Your task to perform on an android device: Search for Mexican restaurants on Maps Image 0: 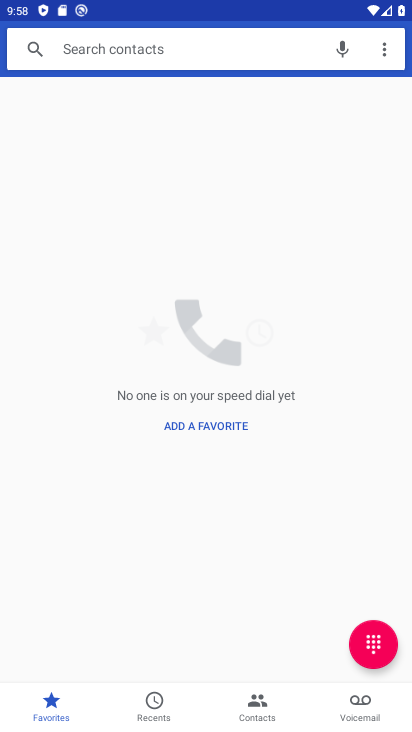
Step 0: press home button
Your task to perform on an android device: Search for Mexican restaurants on Maps Image 1: 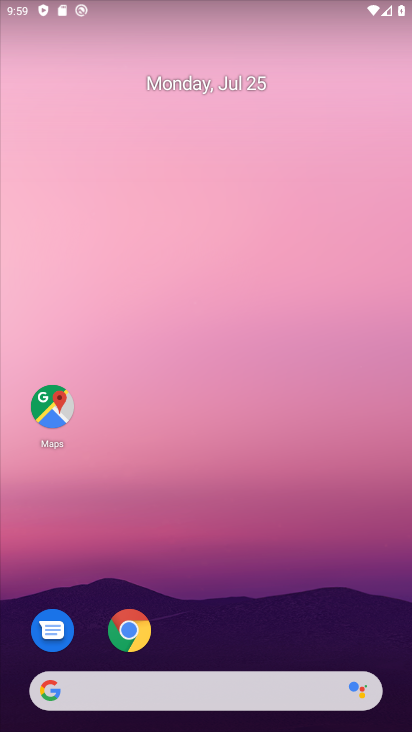
Step 1: drag from (346, 564) to (350, 108)
Your task to perform on an android device: Search for Mexican restaurants on Maps Image 2: 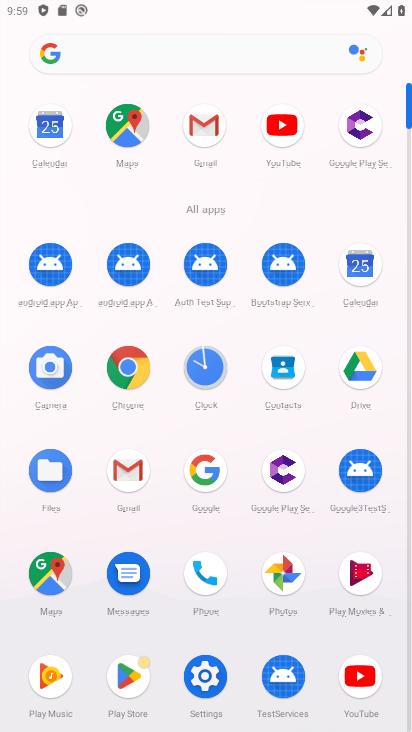
Step 2: click (49, 573)
Your task to perform on an android device: Search for Mexican restaurants on Maps Image 3: 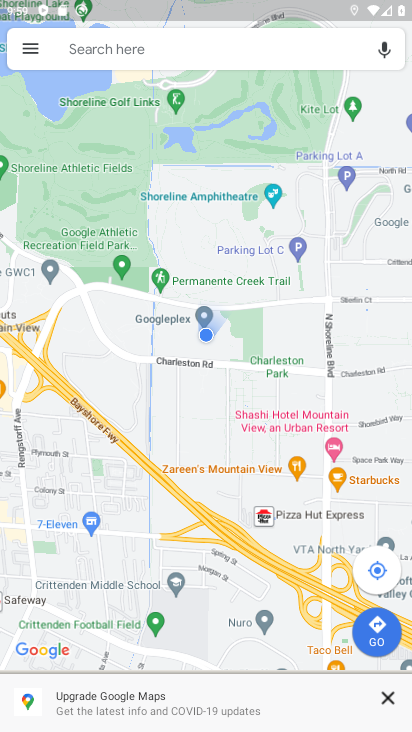
Step 3: click (115, 50)
Your task to perform on an android device: Search for Mexican restaurants on Maps Image 4: 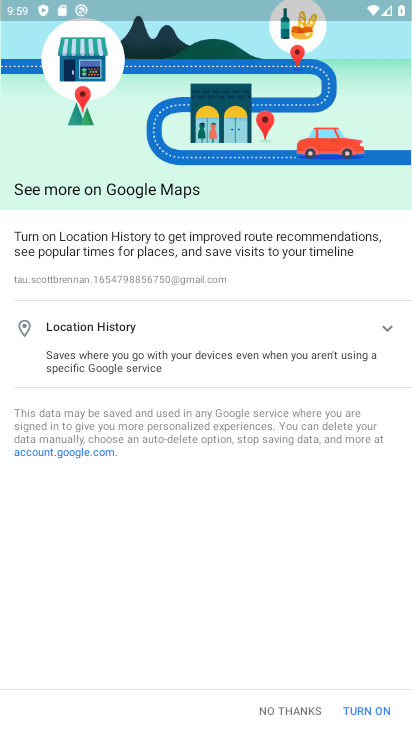
Step 4: click (304, 710)
Your task to perform on an android device: Search for Mexican restaurants on Maps Image 5: 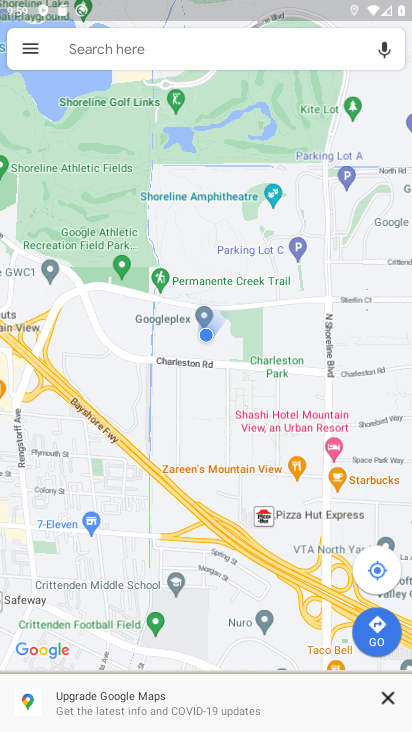
Step 5: click (163, 49)
Your task to perform on an android device: Search for Mexican restaurants on Maps Image 6: 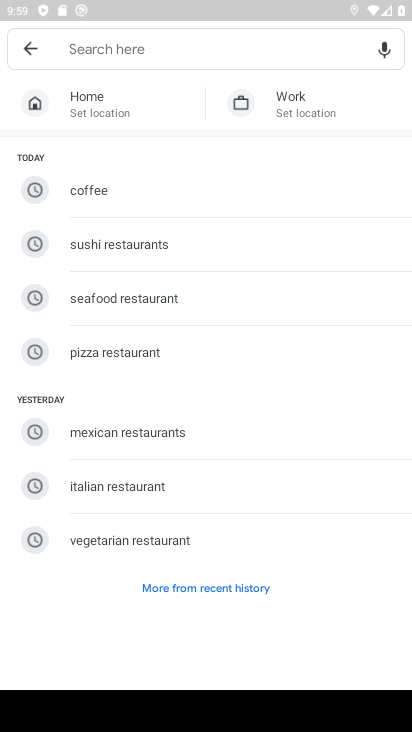
Step 6: type "mexcian restaurants"
Your task to perform on an android device: Search for Mexican restaurants on Maps Image 7: 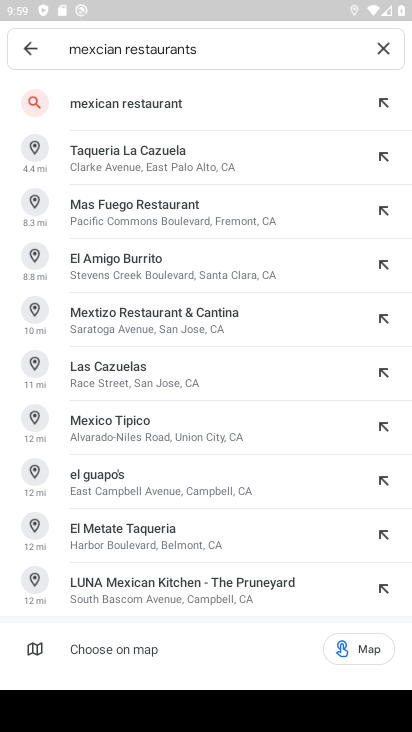
Step 7: click (302, 105)
Your task to perform on an android device: Search for Mexican restaurants on Maps Image 8: 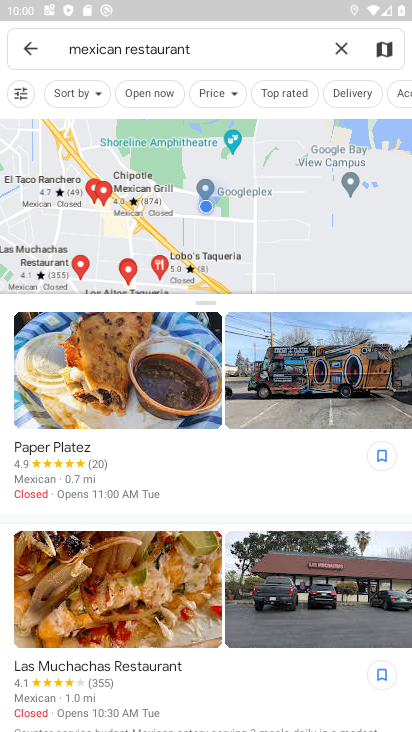
Step 8: task complete